Your task to perform on an android device: toggle location history Image 0: 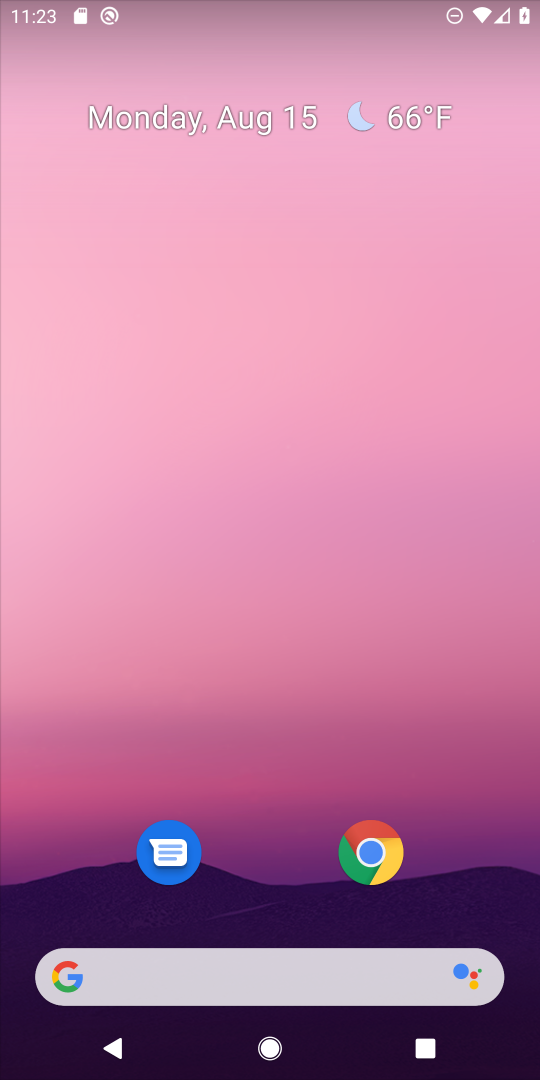
Step 0: drag from (206, 920) to (345, 67)
Your task to perform on an android device: toggle location history Image 1: 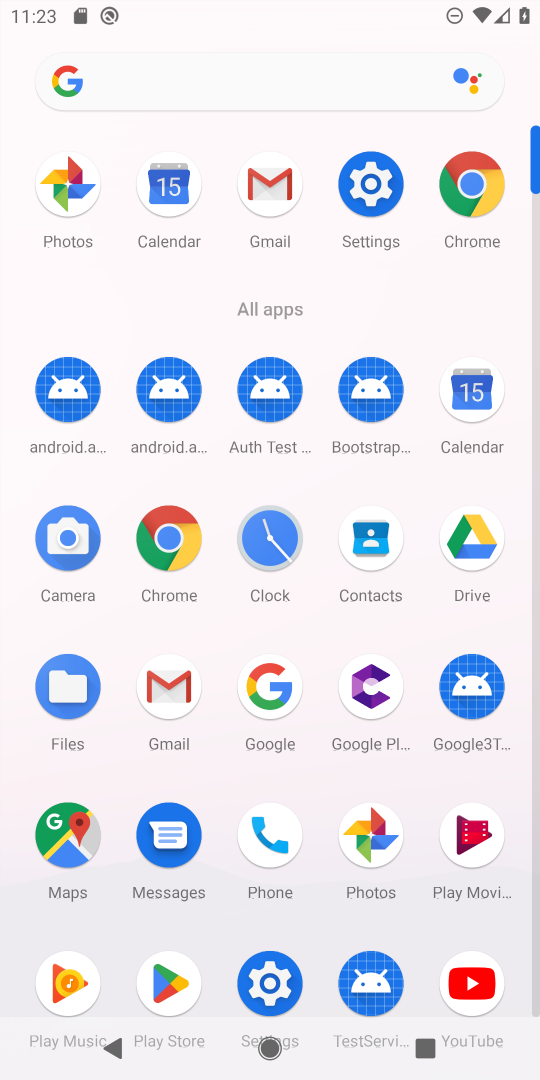
Step 1: click (365, 186)
Your task to perform on an android device: toggle location history Image 2: 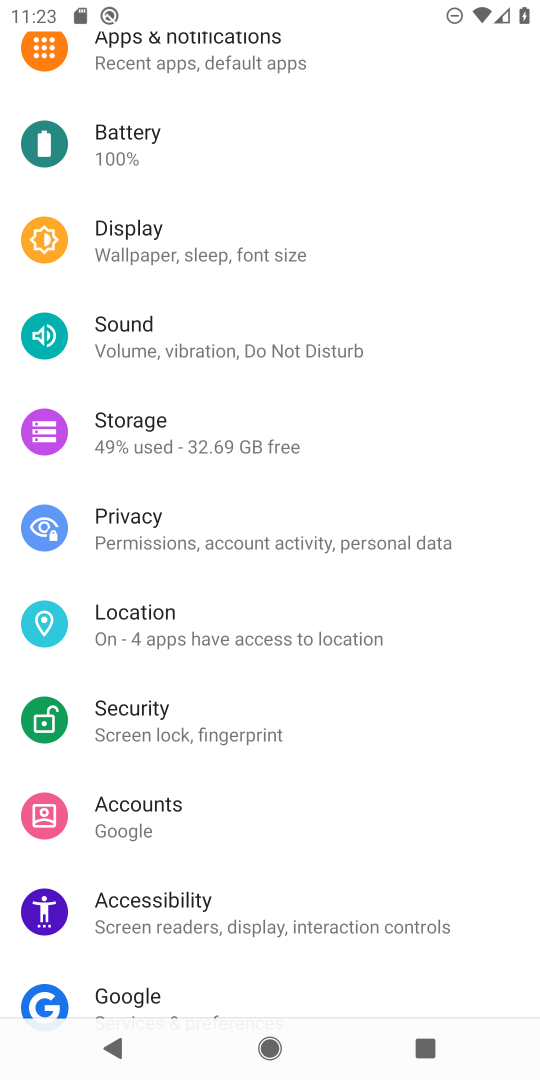
Step 2: click (194, 636)
Your task to perform on an android device: toggle location history Image 3: 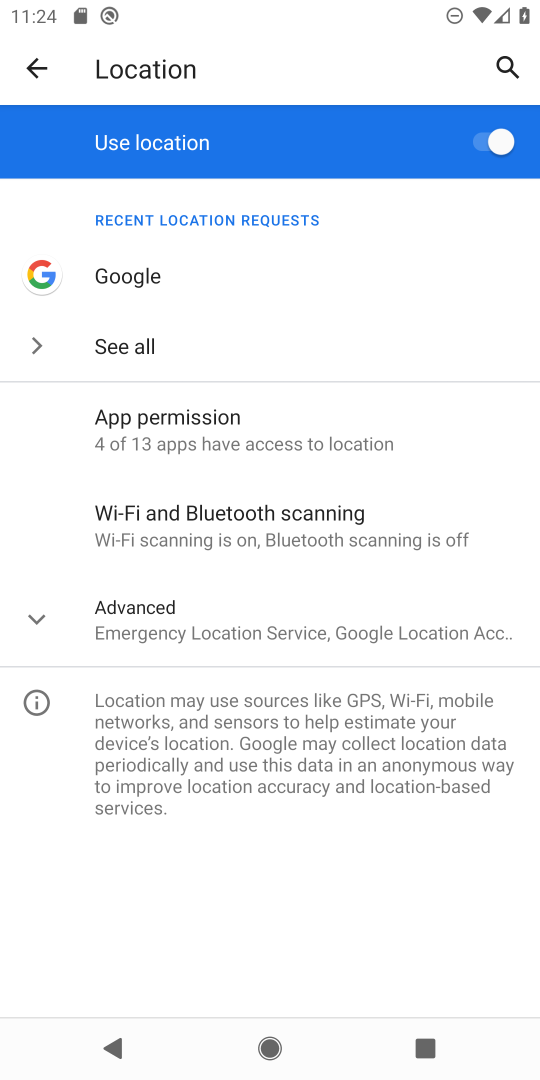
Step 3: click (309, 610)
Your task to perform on an android device: toggle location history Image 4: 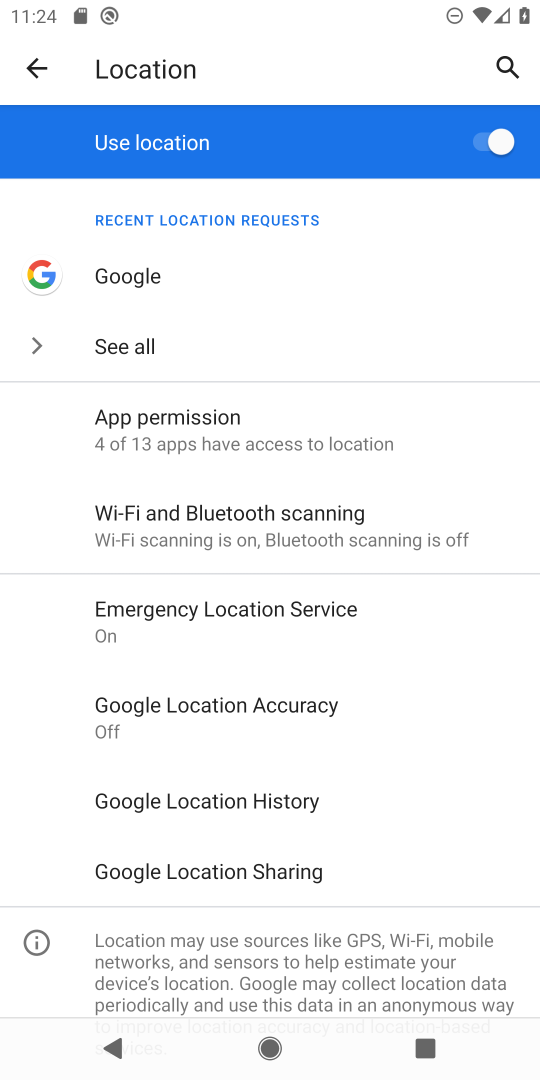
Step 4: click (211, 819)
Your task to perform on an android device: toggle location history Image 5: 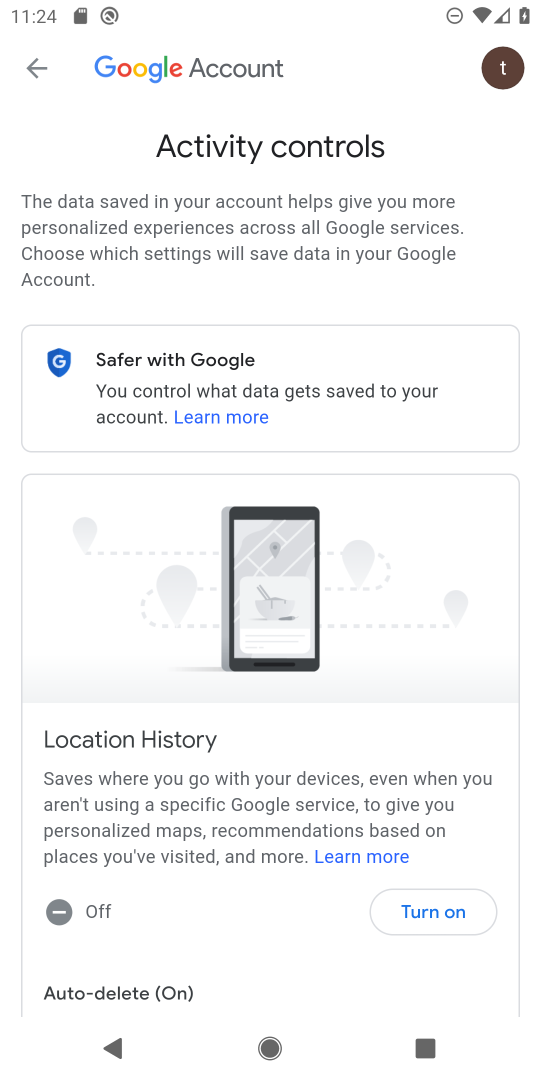
Step 5: click (437, 926)
Your task to perform on an android device: toggle location history Image 6: 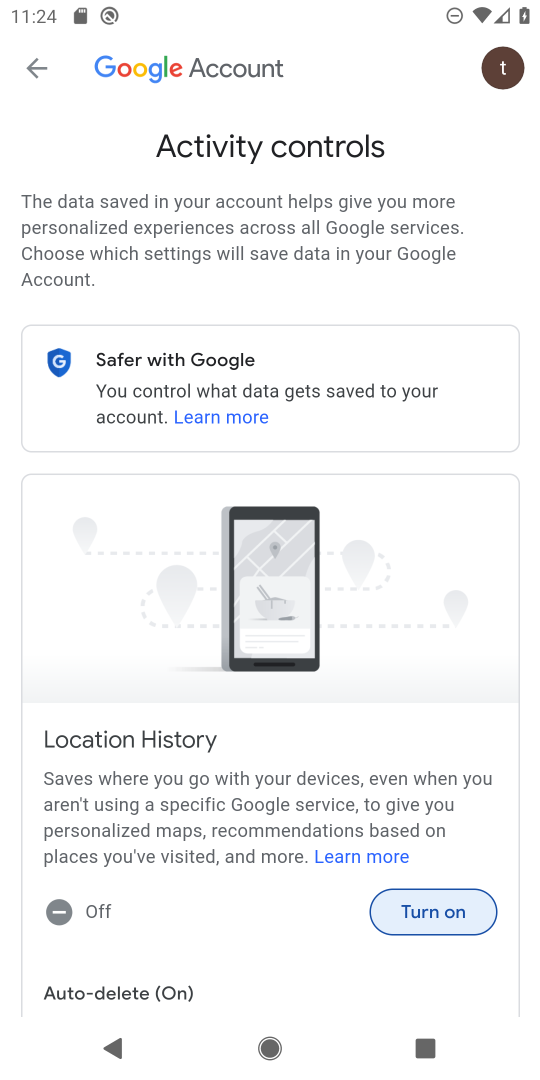
Step 6: drag from (324, 888) to (407, 240)
Your task to perform on an android device: toggle location history Image 7: 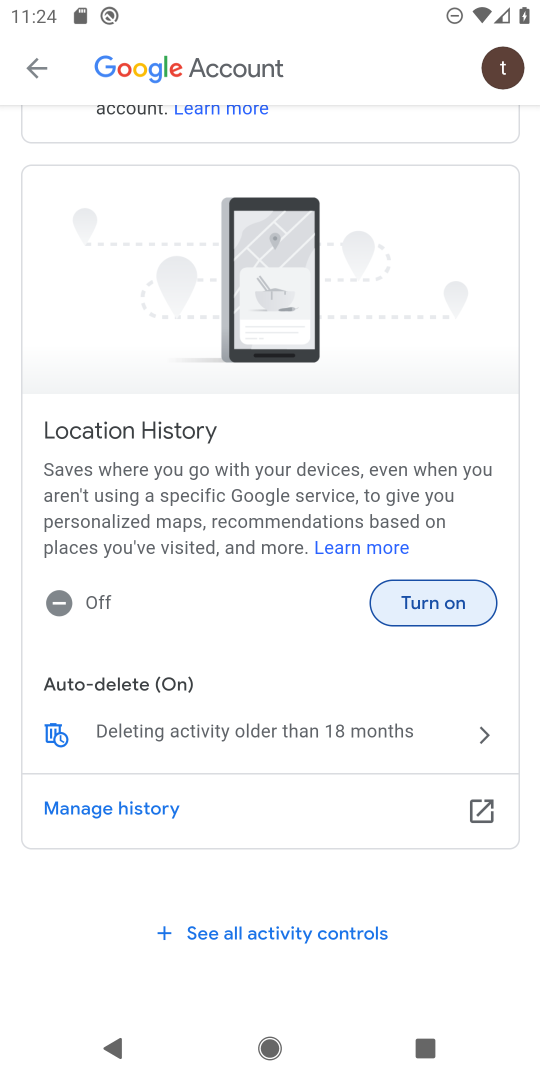
Step 7: click (420, 608)
Your task to perform on an android device: toggle location history Image 8: 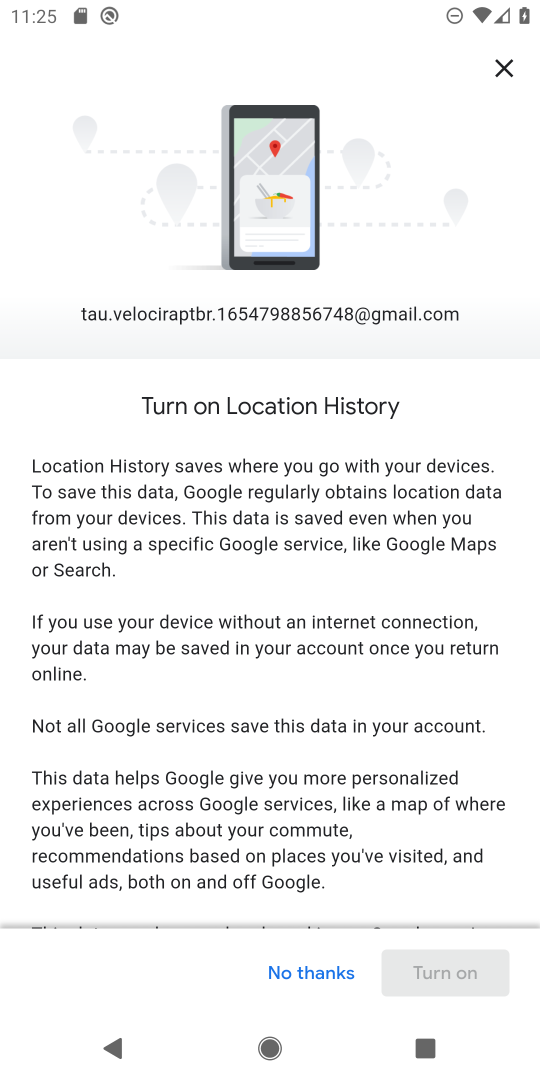
Step 8: drag from (327, 876) to (374, 90)
Your task to perform on an android device: toggle location history Image 9: 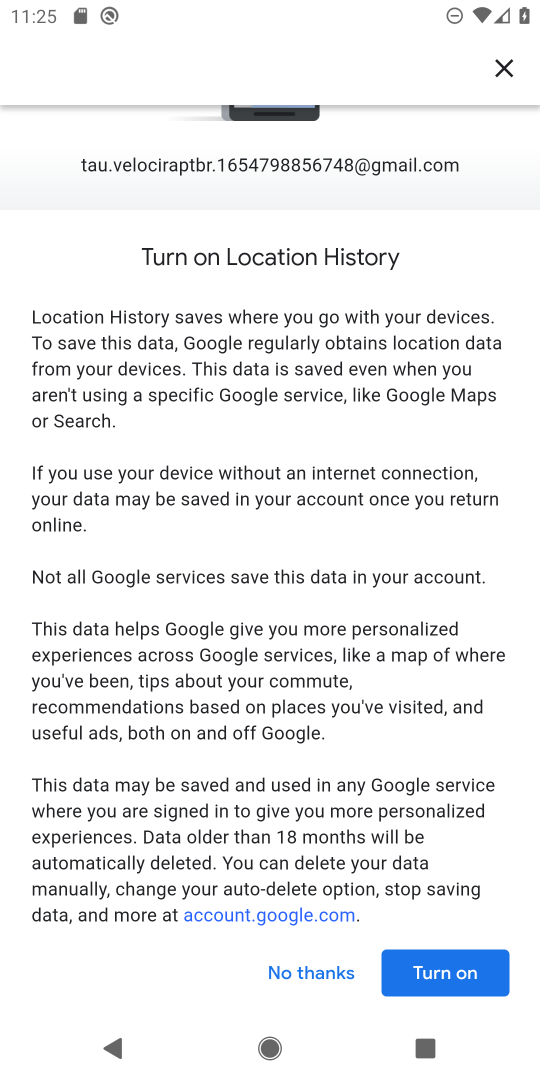
Step 9: click (469, 988)
Your task to perform on an android device: toggle location history Image 10: 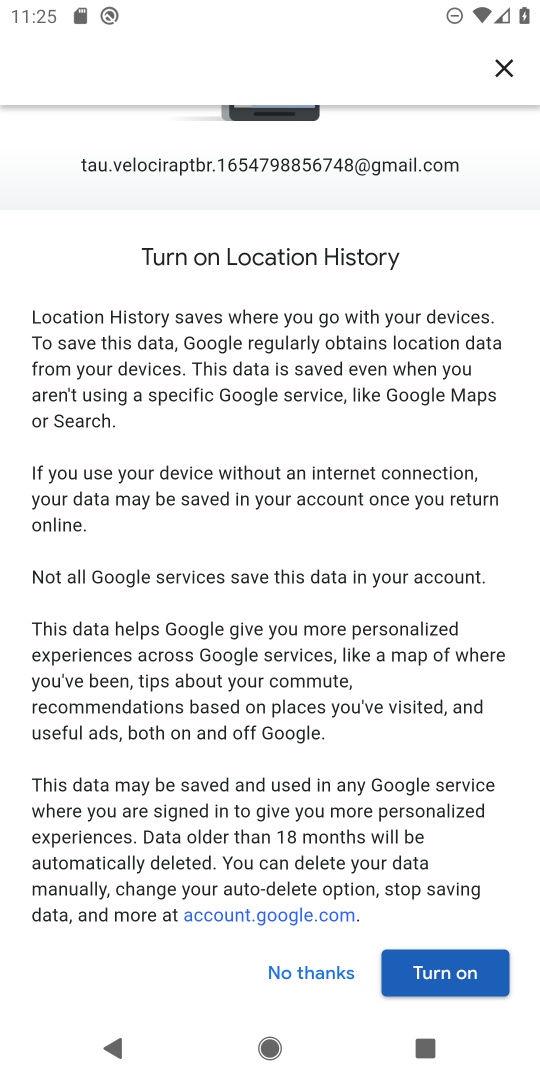
Step 10: click (424, 972)
Your task to perform on an android device: toggle location history Image 11: 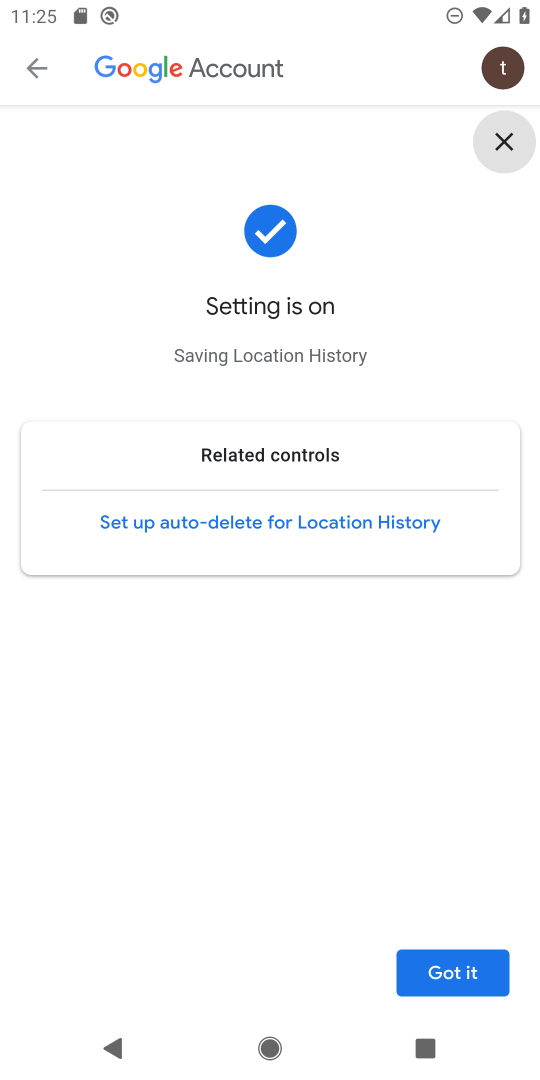
Step 11: click (470, 975)
Your task to perform on an android device: toggle location history Image 12: 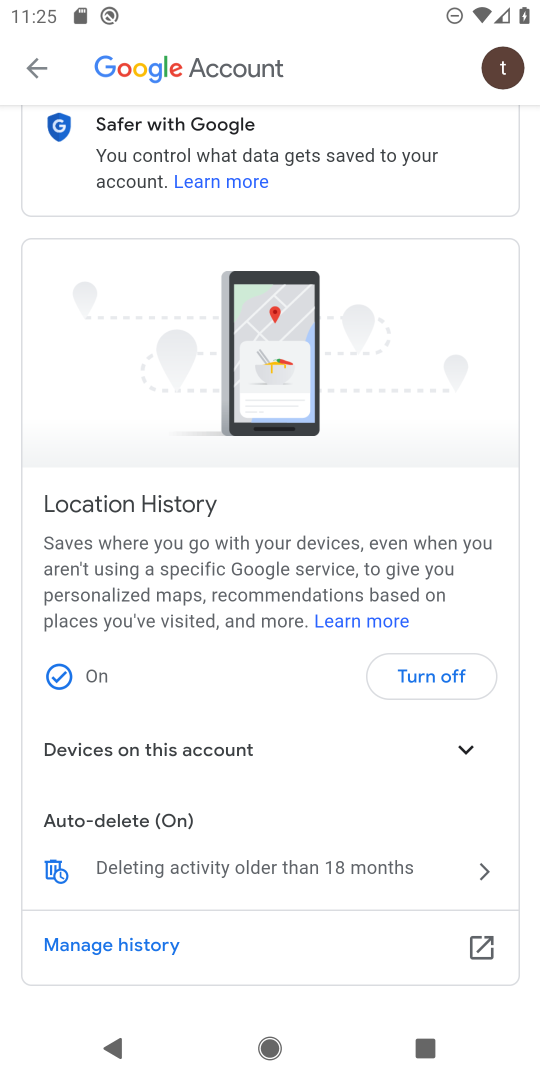
Step 12: task complete